Your task to perform on an android device: turn off location history Image 0: 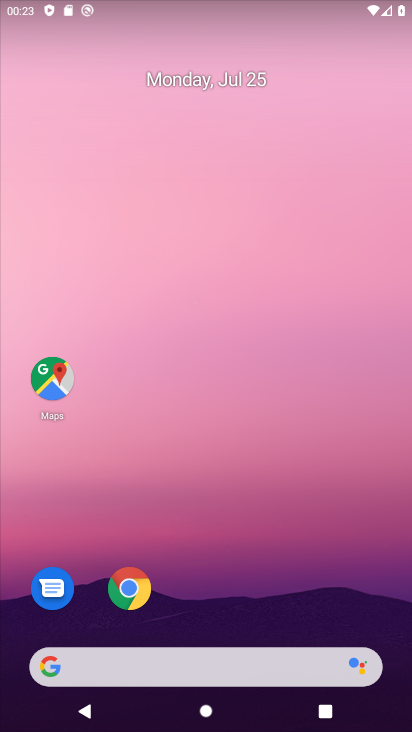
Step 0: drag from (213, 585) to (228, 25)
Your task to perform on an android device: turn off location history Image 1: 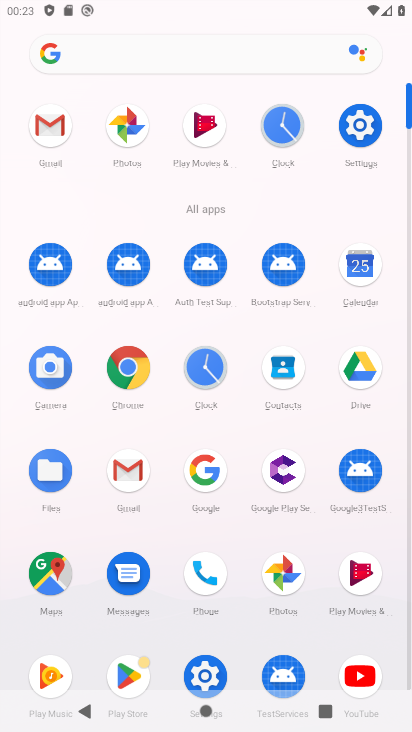
Step 1: click (364, 139)
Your task to perform on an android device: turn off location history Image 2: 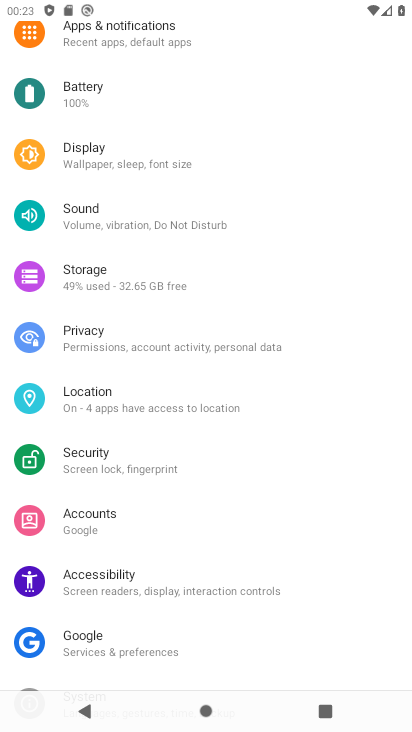
Step 2: click (112, 408)
Your task to perform on an android device: turn off location history Image 3: 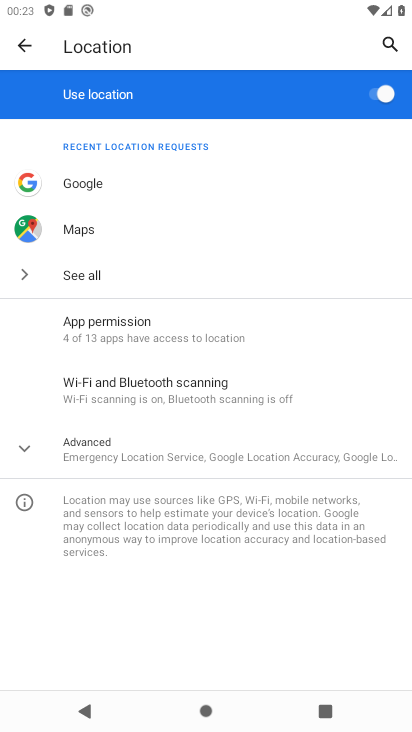
Step 3: click (114, 449)
Your task to perform on an android device: turn off location history Image 4: 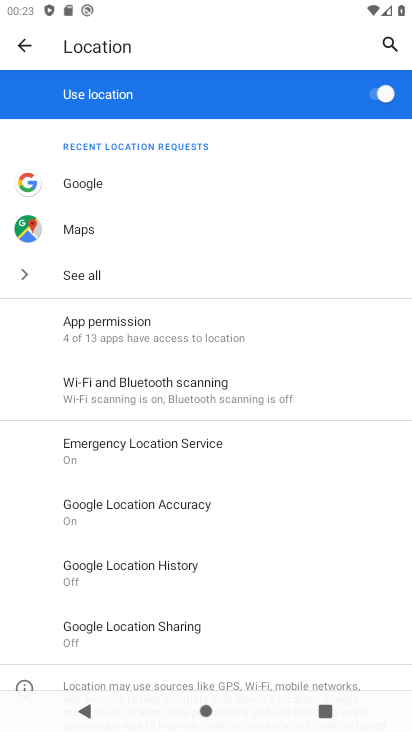
Step 4: click (157, 562)
Your task to perform on an android device: turn off location history Image 5: 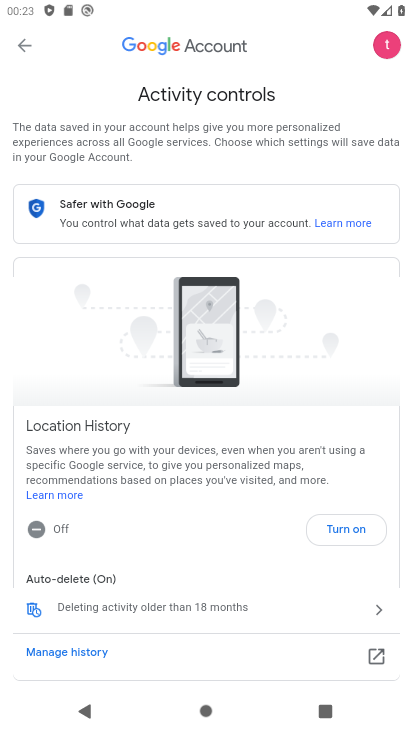
Step 5: task complete